Your task to perform on an android device: Open Amazon Image 0: 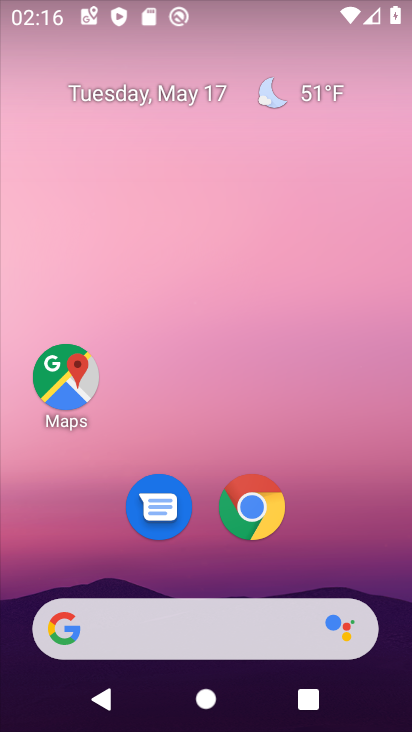
Step 0: click (238, 511)
Your task to perform on an android device: Open Amazon Image 1: 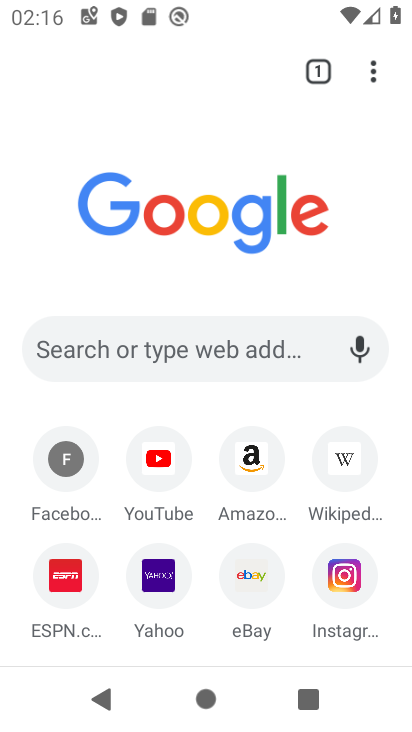
Step 1: click (229, 474)
Your task to perform on an android device: Open Amazon Image 2: 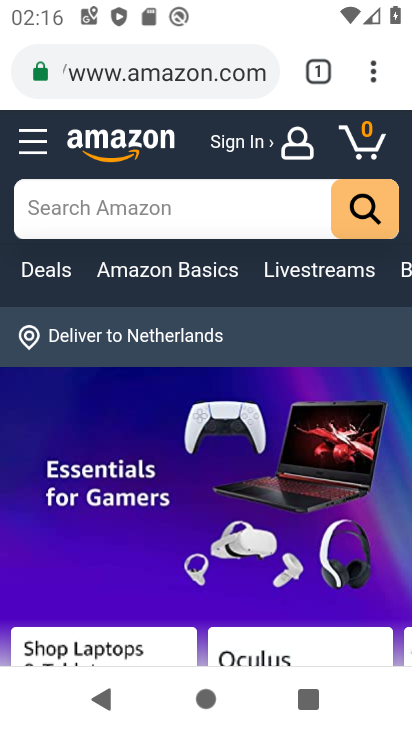
Step 2: task complete